Your task to perform on an android device: snooze an email in the gmail app Image 0: 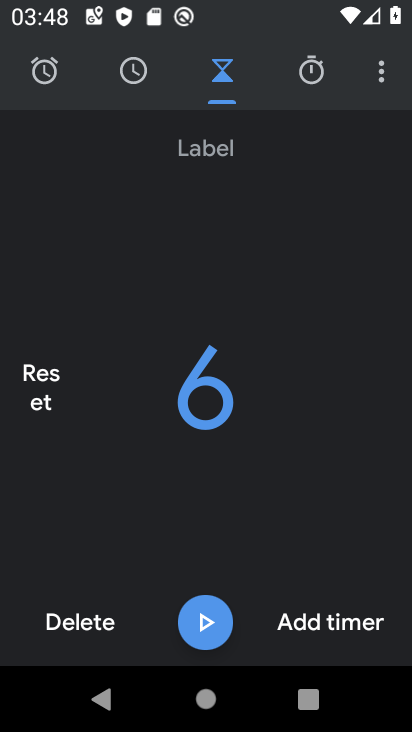
Step 0: press home button
Your task to perform on an android device: snooze an email in the gmail app Image 1: 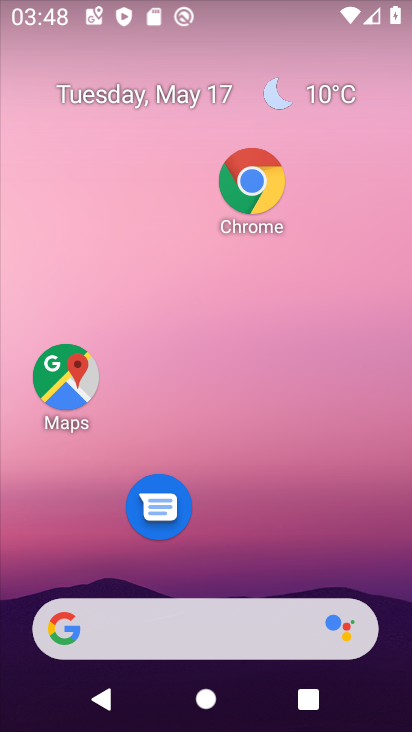
Step 1: drag from (211, 621) to (229, 170)
Your task to perform on an android device: snooze an email in the gmail app Image 2: 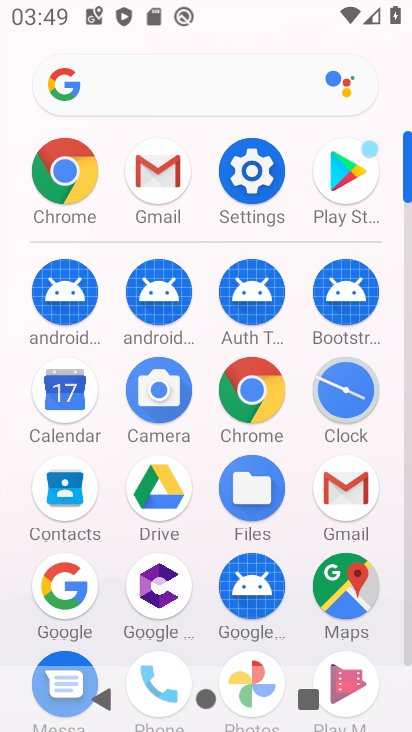
Step 2: click (169, 156)
Your task to perform on an android device: snooze an email in the gmail app Image 3: 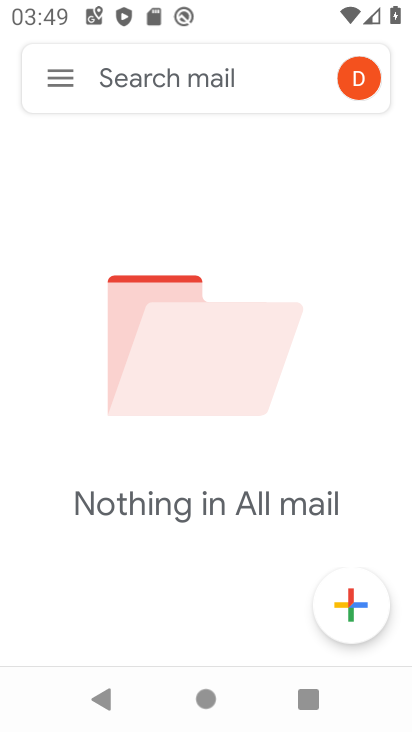
Step 3: task complete